Your task to perform on an android device: delete a single message in the gmail app Image 0: 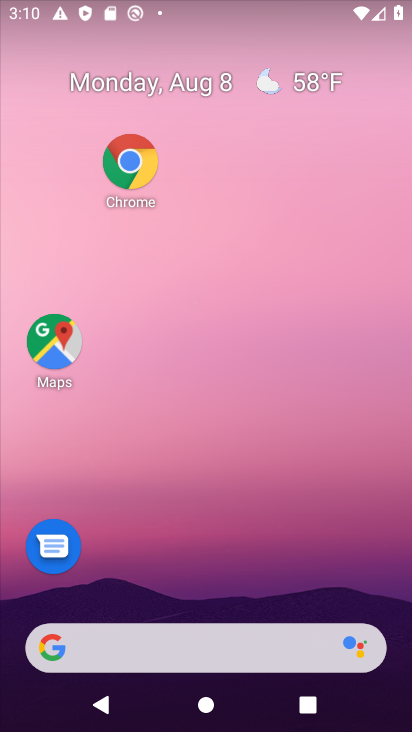
Step 0: drag from (148, 562) to (132, 96)
Your task to perform on an android device: delete a single message in the gmail app Image 1: 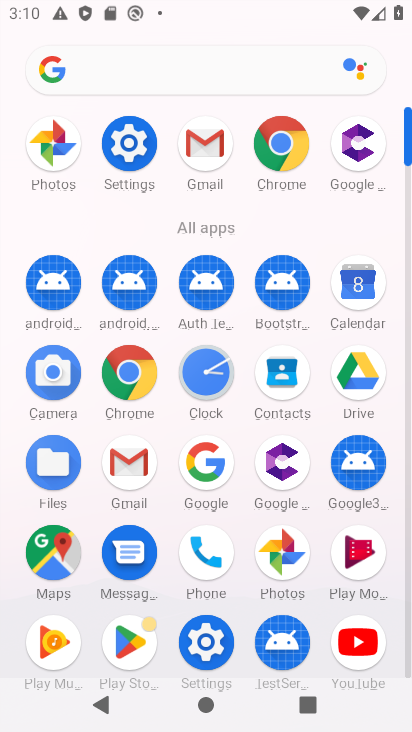
Step 1: click (202, 146)
Your task to perform on an android device: delete a single message in the gmail app Image 2: 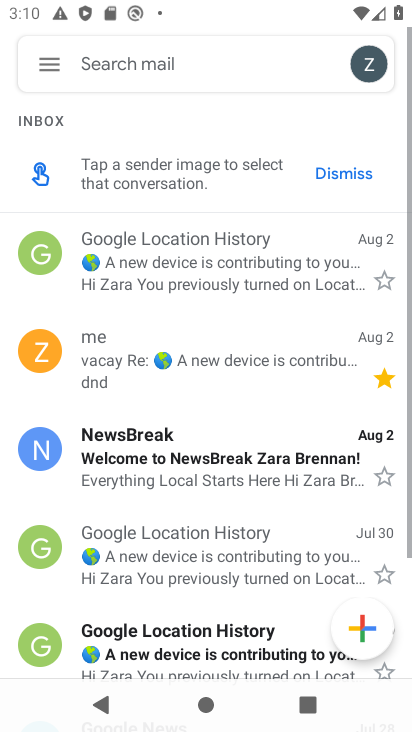
Step 2: click (35, 253)
Your task to perform on an android device: delete a single message in the gmail app Image 3: 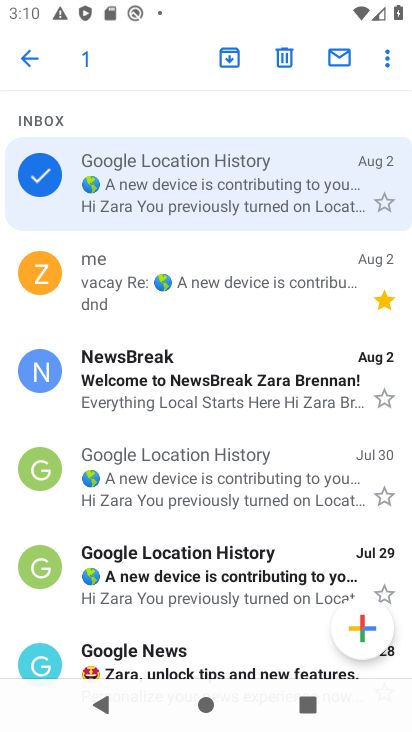
Step 3: click (292, 66)
Your task to perform on an android device: delete a single message in the gmail app Image 4: 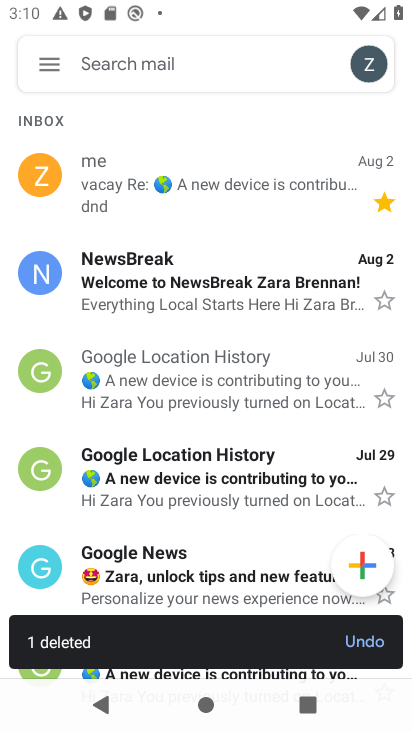
Step 4: task complete